Your task to perform on an android device: turn on bluetooth scan Image 0: 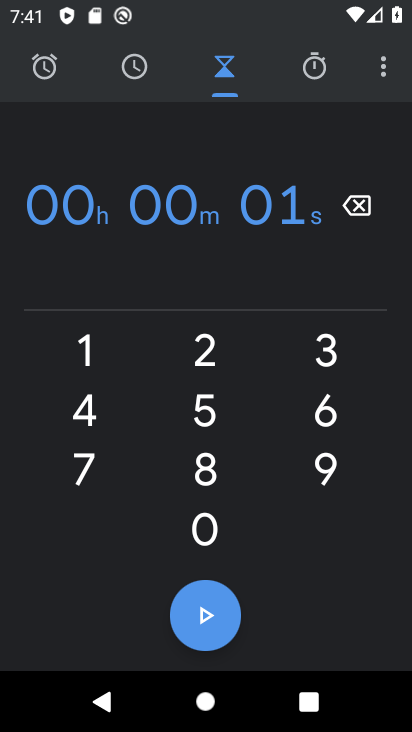
Step 0: press home button
Your task to perform on an android device: turn on bluetooth scan Image 1: 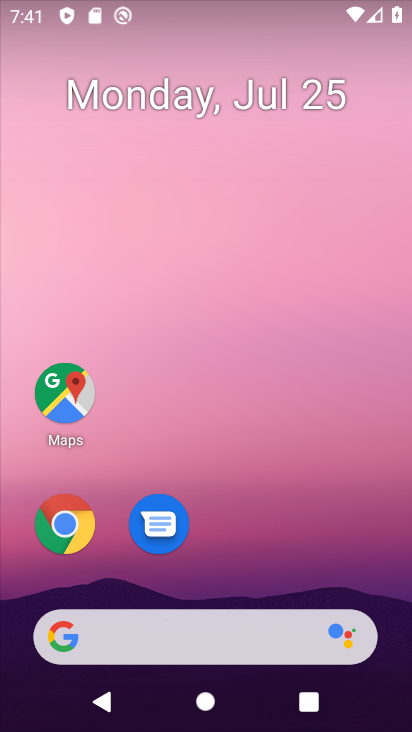
Step 1: drag from (235, 548) to (247, 49)
Your task to perform on an android device: turn on bluetooth scan Image 2: 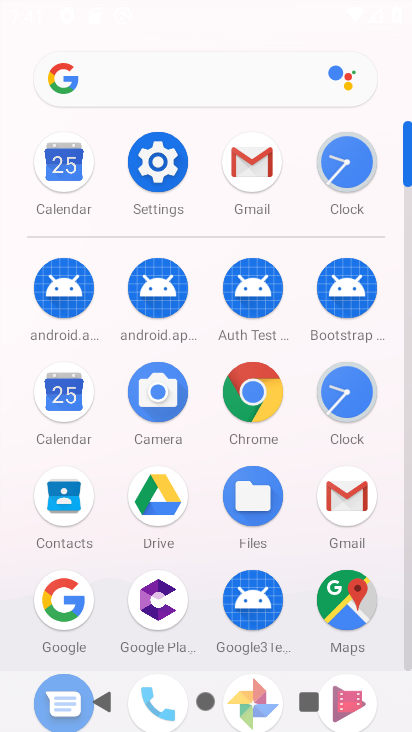
Step 2: click (171, 161)
Your task to perform on an android device: turn on bluetooth scan Image 3: 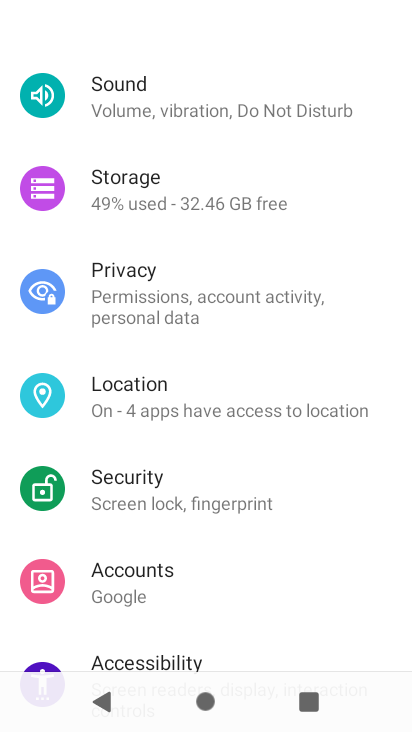
Step 3: click (183, 407)
Your task to perform on an android device: turn on bluetooth scan Image 4: 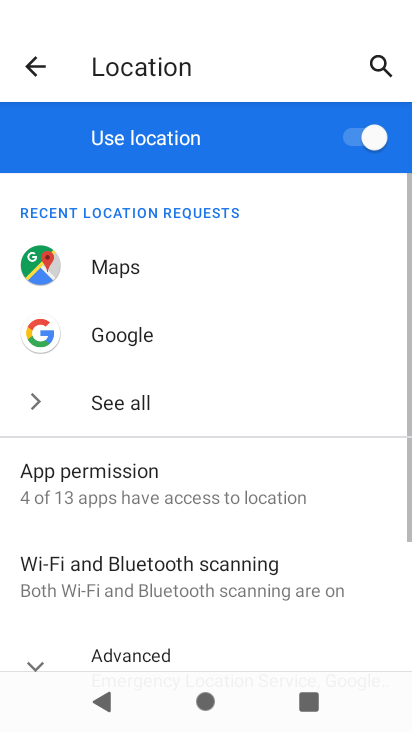
Step 4: click (224, 578)
Your task to perform on an android device: turn on bluetooth scan Image 5: 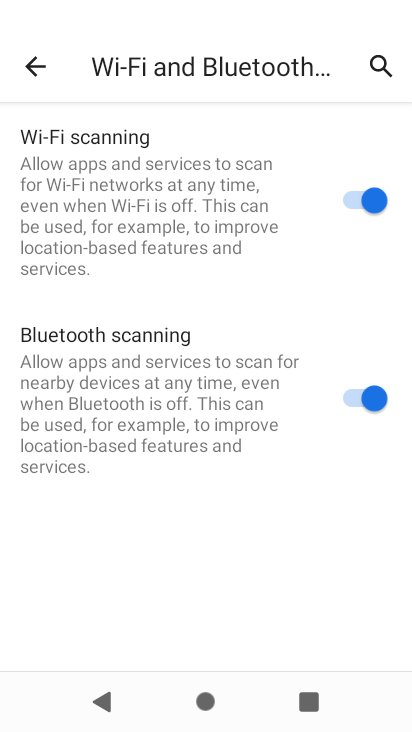
Step 5: task complete